Your task to perform on an android device: Open accessibility settings Image 0: 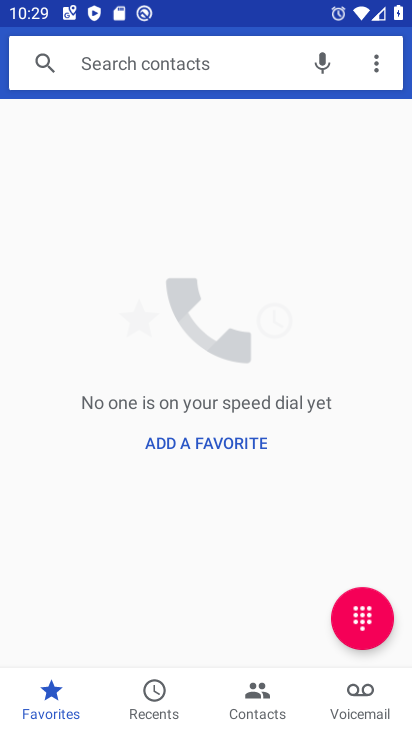
Step 0: press home button
Your task to perform on an android device: Open accessibility settings Image 1: 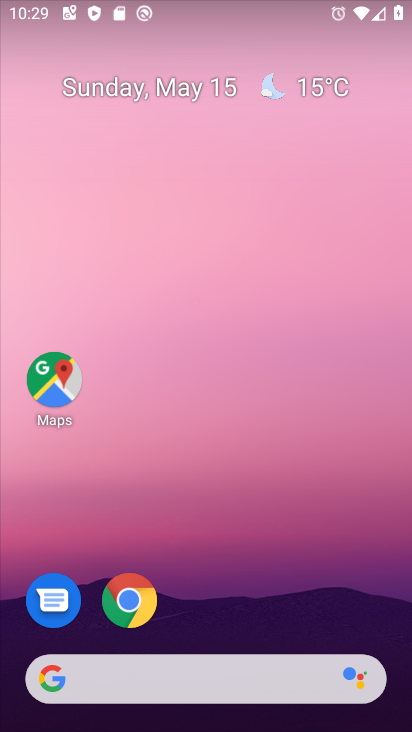
Step 1: drag from (352, 517) to (327, 129)
Your task to perform on an android device: Open accessibility settings Image 2: 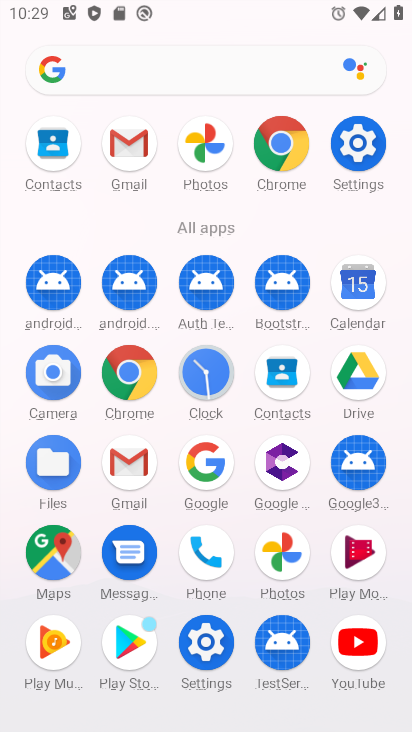
Step 2: click (376, 144)
Your task to perform on an android device: Open accessibility settings Image 3: 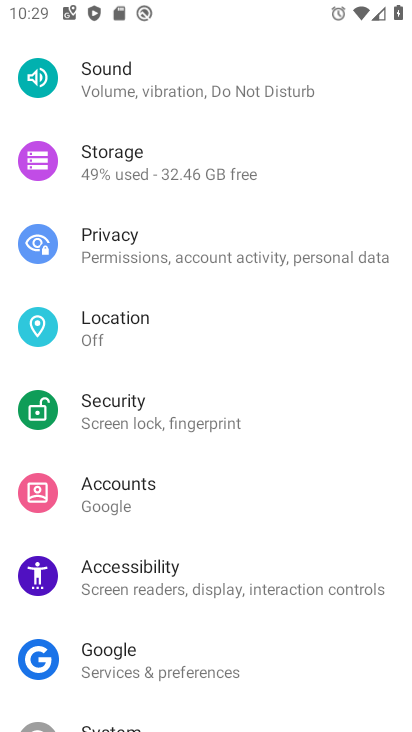
Step 3: drag from (316, 353) to (303, 533)
Your task to perform on an android device: Open accessibility settings Image 4: 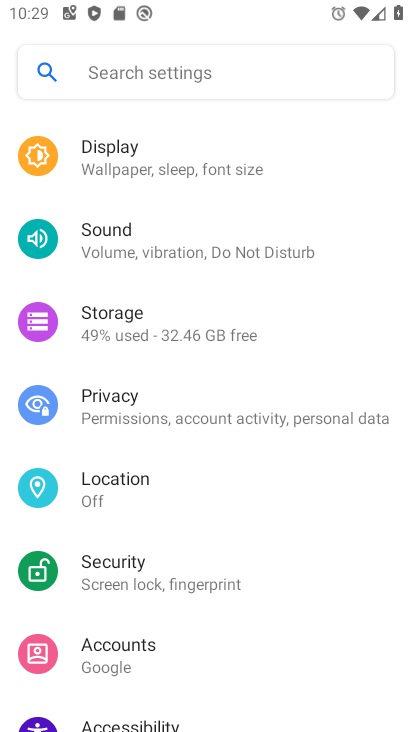
Step 4: drag from (302, 596) to (303, 387)
Your task to perform on an android device: Open accessibility settings Image 5: 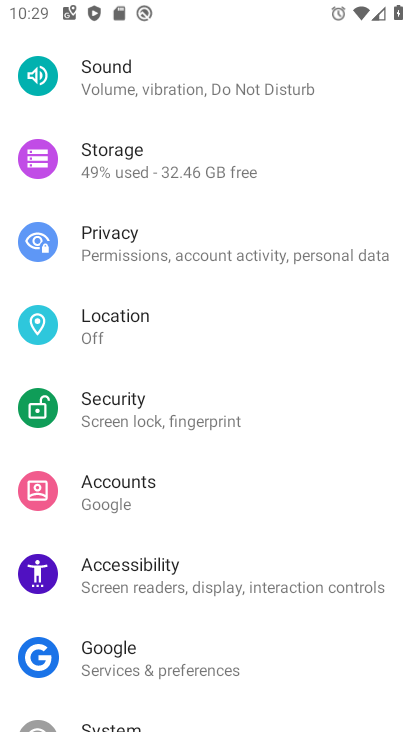
Step 5: click (247, 581)
Your task to perform on an android device: Open accessibility settings Image 6: 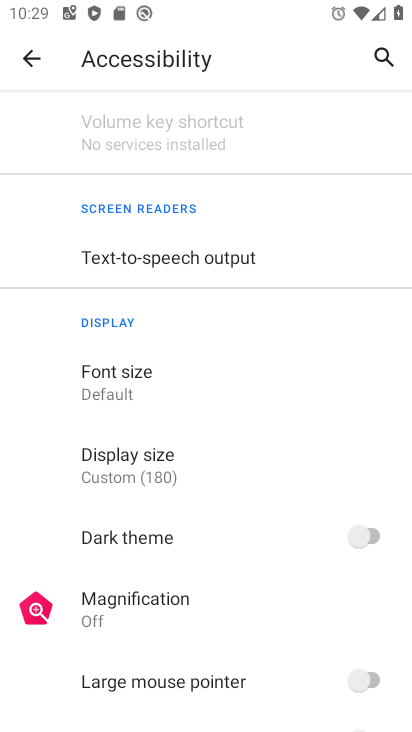
Step 6: task complete